Your task to perform on an android device: What's the weather? Image 0: 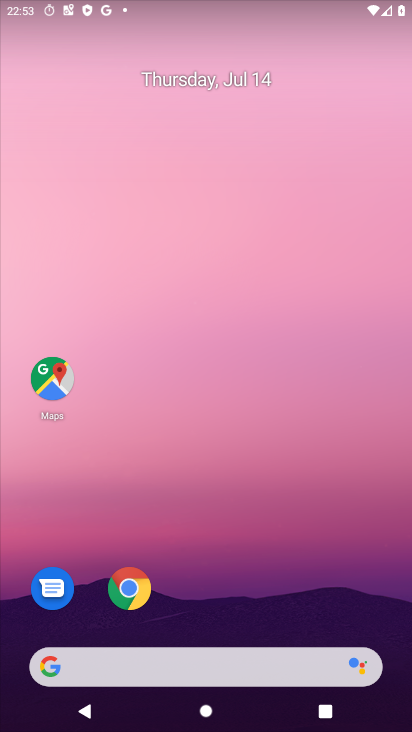
Step 0: drag from (214, 627) to (211, 57)
Your task to perform on an android device: What's the weather? Image 1: 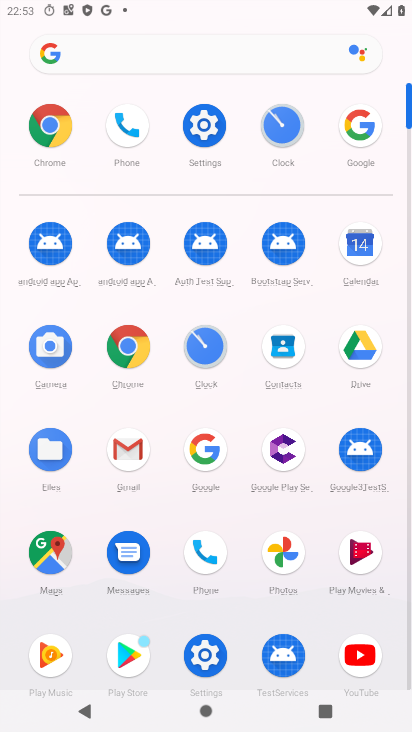
Step 1: click (213, 450)
Your task to perform on an android device: What's the weather? Image 2: 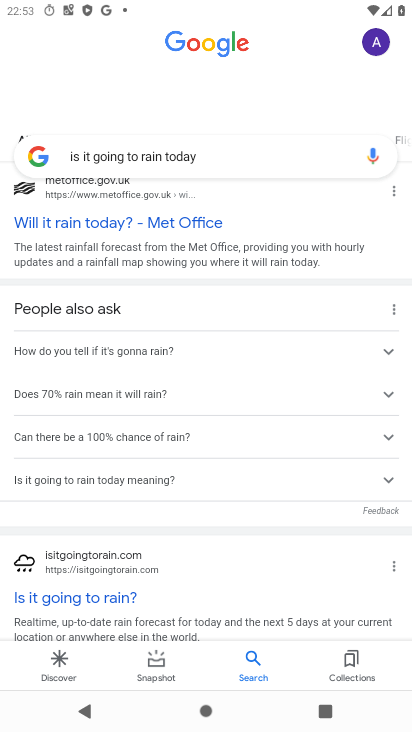
Step 2: click (285, 157)
Your task to perform on an android device: What's the weather? Image 3: 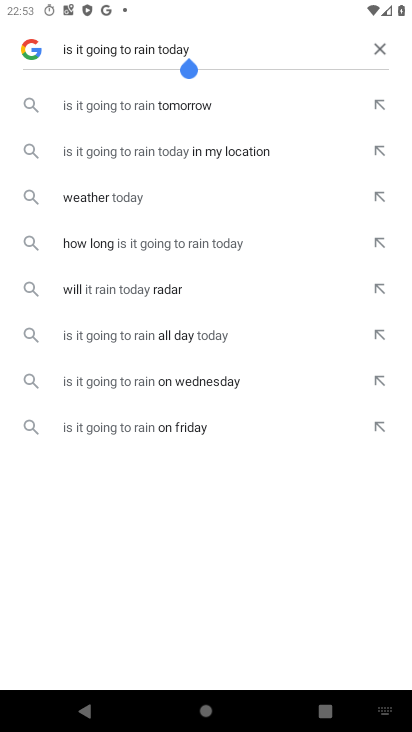
Step 3: click (384, 46)
Your task to perform on an android device: What's the weather? Image 4: 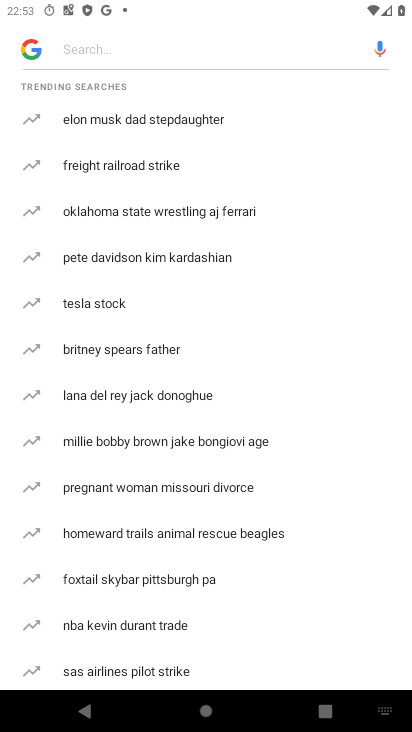
Step 4: type "whats the weather"
Your task to perform on an android device: What's the weather? Image 5: 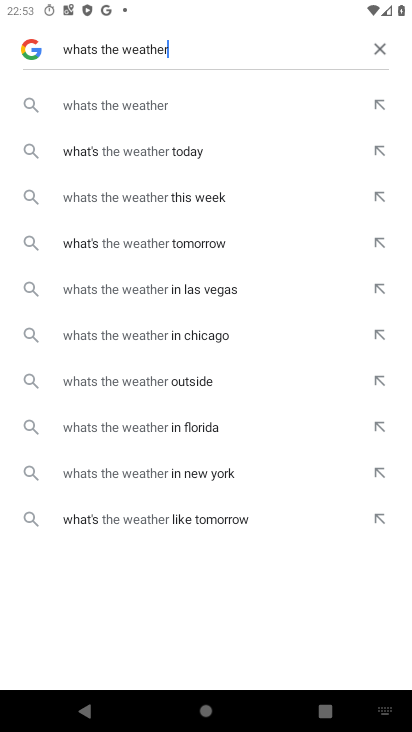
Step 5: click (188, 98)
Your task to perform on an android device: What's the weather? Image 6: 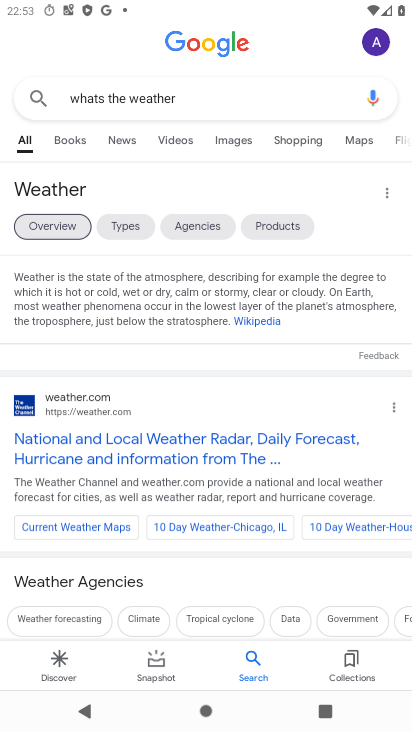
Step 6: task complete